Your task to perform on an android device: Open the calendar app, open the side menu, and click the "Day" option Image 0: 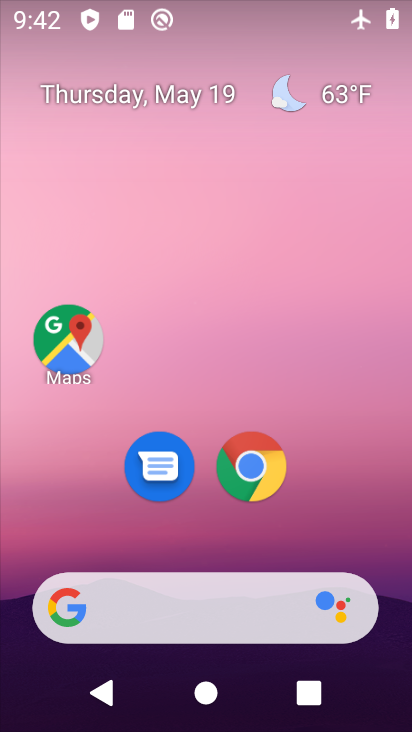
Step 0: drag from (405, 623) to (279, 73)
Your task to perform on an android device: Open the calendar app, open the side menu, and click the "Day" option Image 1: 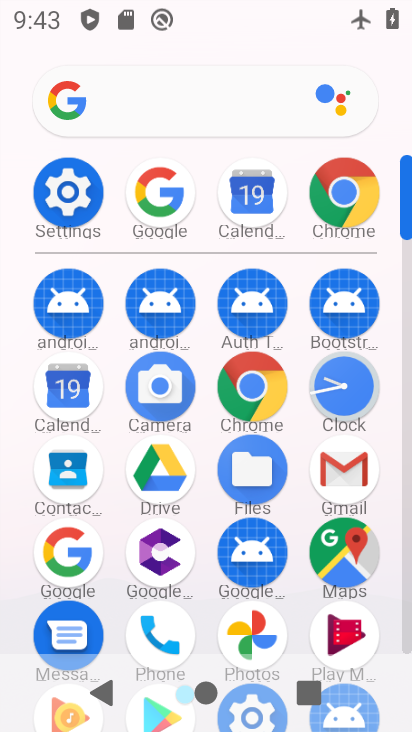
Step 1: click (82, 409)
Your task to perform on an android device: Open the calendar app, open the side menu, and click the "Day" option Image 2: 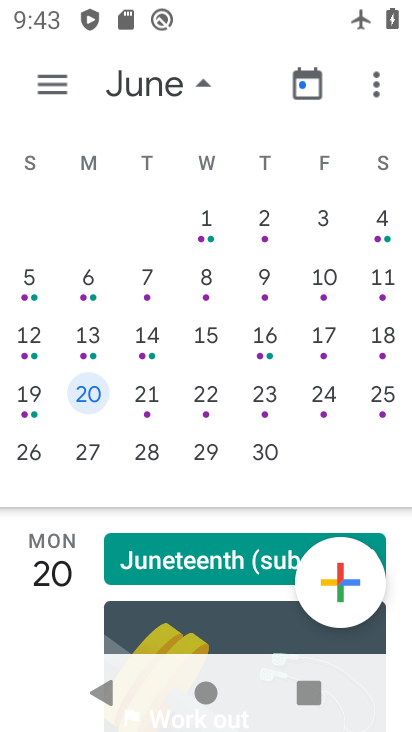
Step 2: click (34, 87)
Your task to perform on an android device: Open the calendar app, open the side menu, and click the "Day" option Image 3: 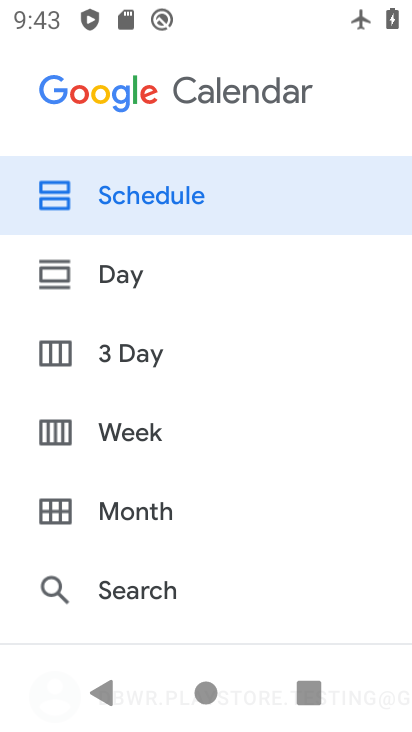
Step 3: click (188, 283)
Your task to perform on an android device: Open the calendar app, open the side menu, and click the "Day" option Image 4: 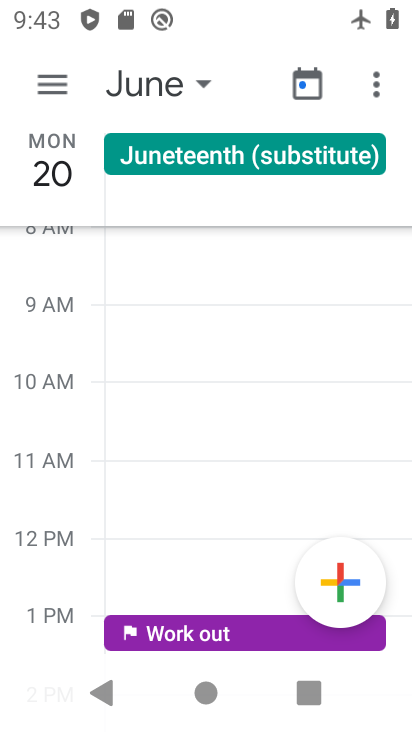
Step 4: task complete